Your task to perform on an android device: Open Google Chrome and click the shortcut for Amazon.com Image 0: 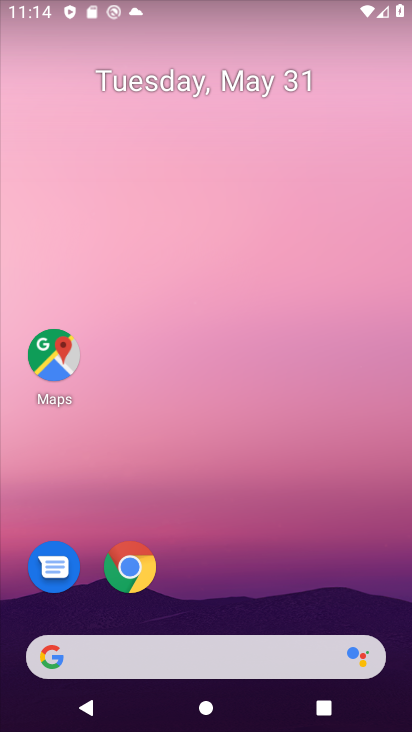
Step 0: drag from (365, 610) to (363, 132)
Your task to perform on an android device: Open Google Chrome and click the shortcut for Amazon.com Image 1: 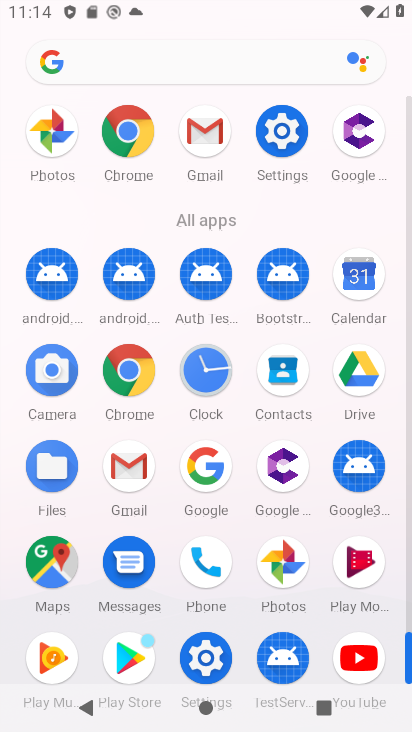
Step 1: click (136, 387)
Your task to perform on an android device: Open Google Chrome and click the shortcut for Amazon.com Image 2: 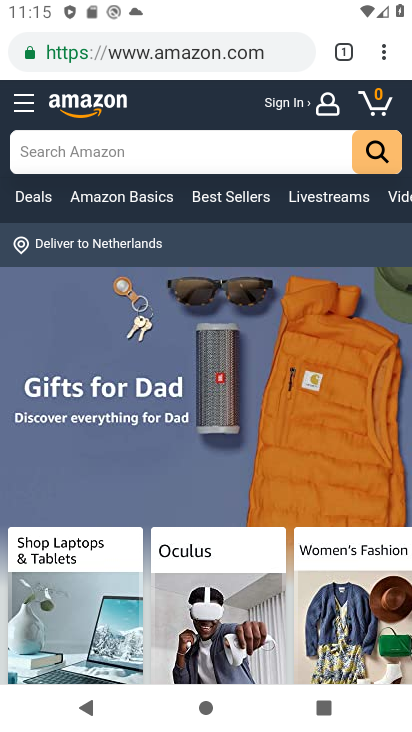
Step 2: task complete